Your task to perform on an android device: Go to ESPN.com Image 0: 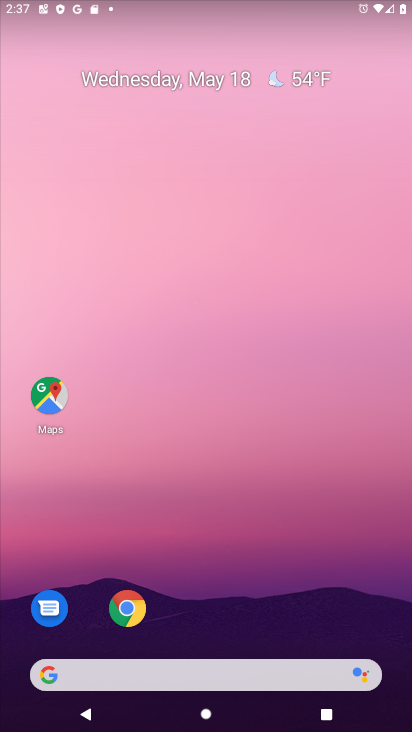
Step 0: click (129, 609)
Your task to perform on an android device: Go to ESPN.com Image 1: 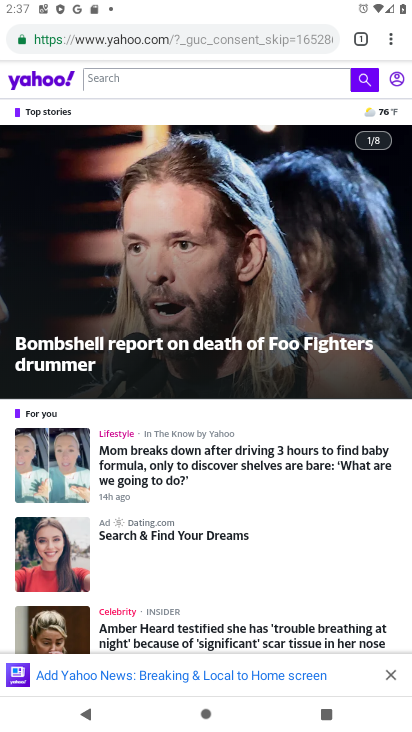
Step 1: click (101, 40)
Your task to perform on an android device: Go to ESPN.com Image 2: 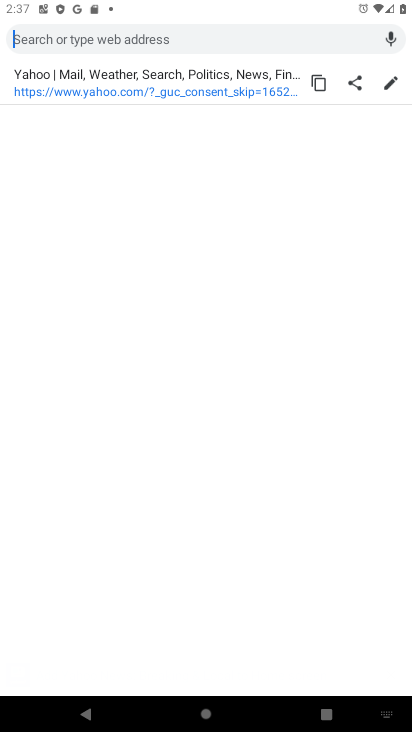
Step 2: type "espn.com"
Your task to perform on an android device: Go to ESPN.com Image 3: 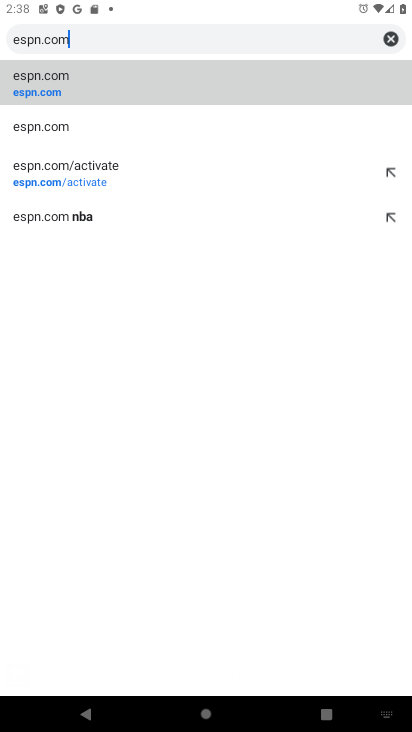
Step 3: click (18, 92)
Your task to perform on an android device: Go to ESPN.com Image 4: 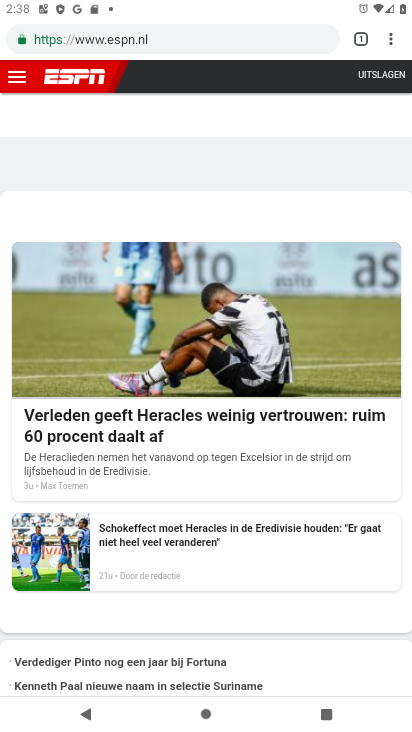
Step 4: task complete